Your task to perform on an android device: change notifications settings Image 0: 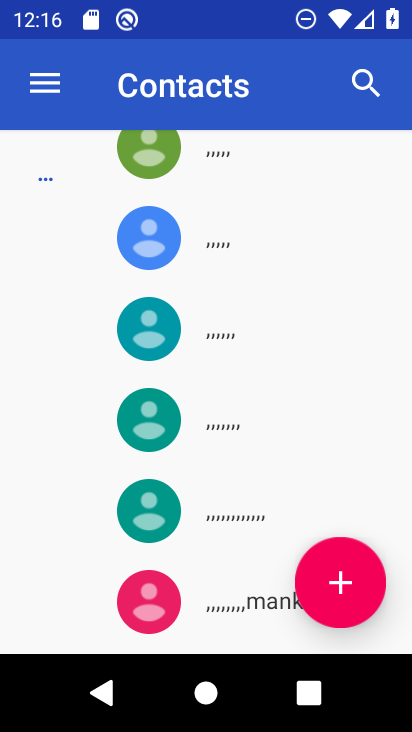
Step 0: press home button
Your task to perform on an android device: change notifications settings Image 1: 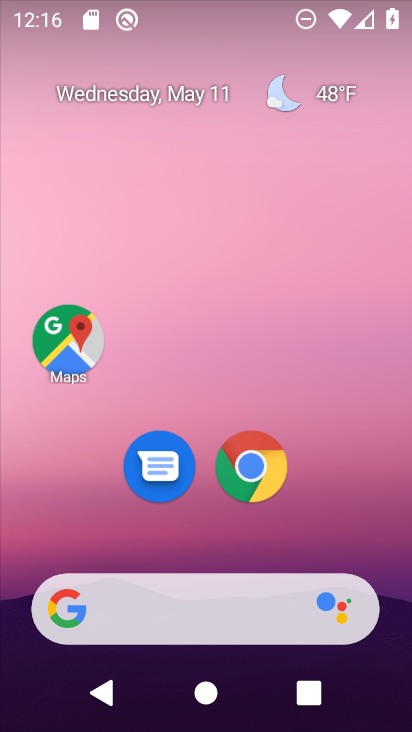
Step 1: drag from (217, 544) to (227, 33)
Your task to perform on an android device: change notifications settings Image 2: 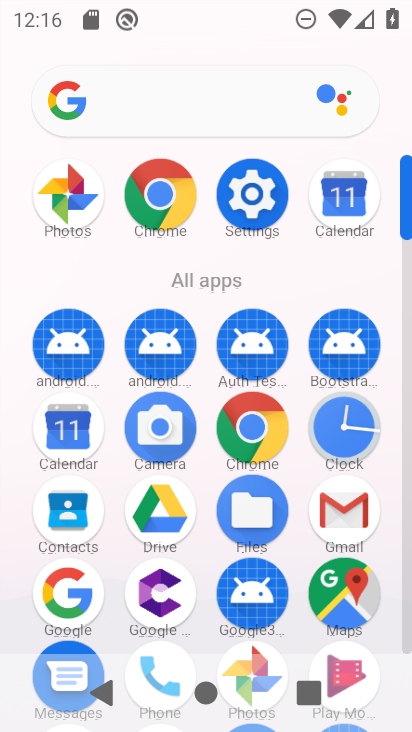
Step 2: click (249, 186)
Your task to perform on an android device: change notifications settings Image 3: 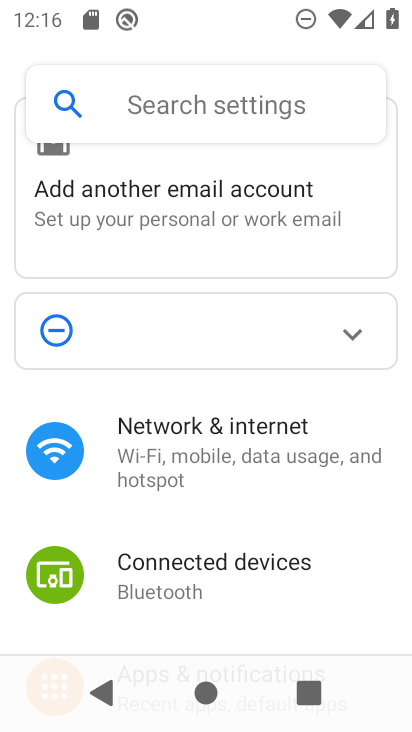
Step 3: drag from (211, 610) to (246, 180)
Your task to perform on an android device: change notifications settings Image 4: 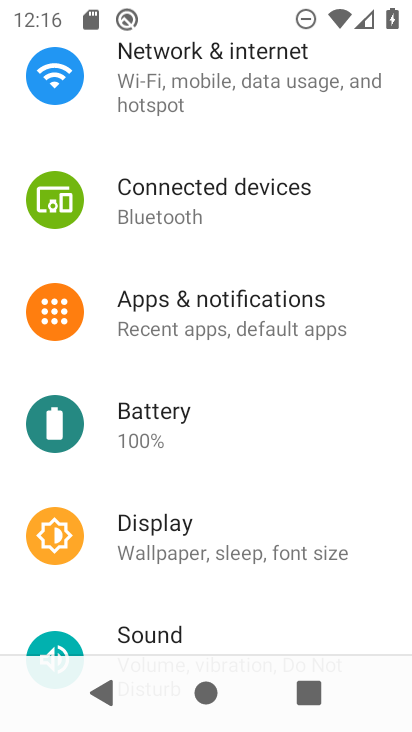
Step 4: click (99, 312)
Your task to perform on an android device: change notifications settings Image 5: 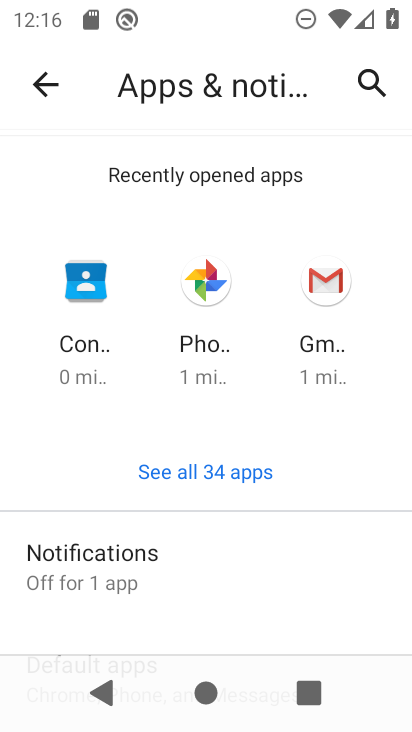
Step 5: click (174, 563)
Your task to perform on an android device: change notifications settings Image 6: 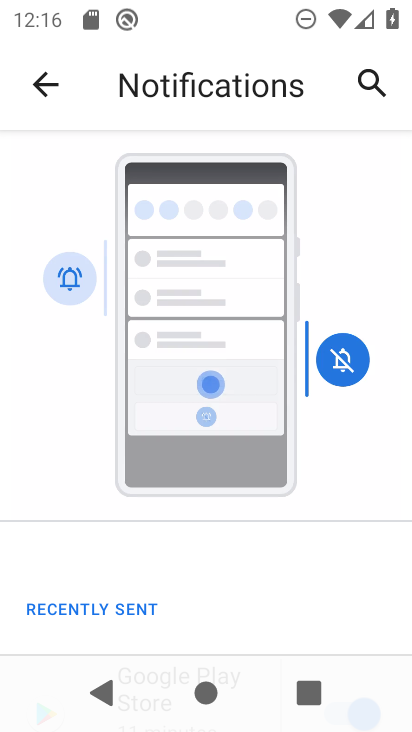
Step 6: drag from (207, 599) to (239, 109)
Your task to perform on an android device: change notifications settings Image 7: 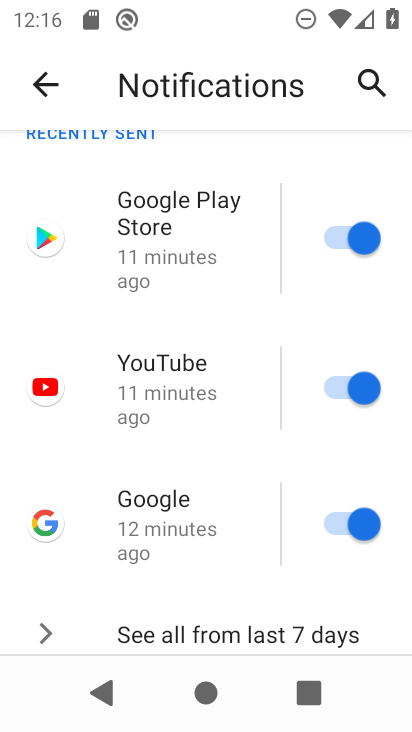
Step 7: drag from (222, 604) to (255, 151)
Your task to perform on an android device: change notifications settings Image 8: 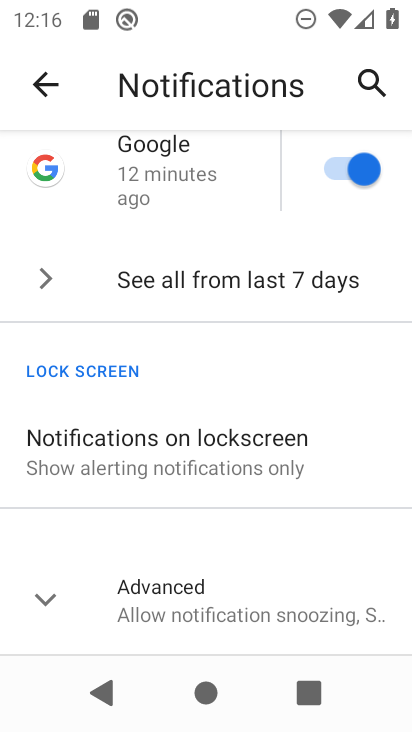
Step 8: click (43, 595)
Your task to perform on an android device: change notifications settings Image 9: 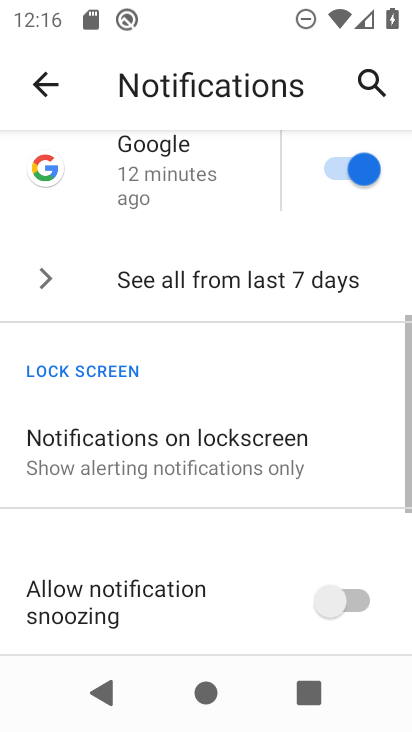
Step 9: drag from (171, 607) to (210, 456)
Your task to perform on an android device: change notifications settings Image 10: 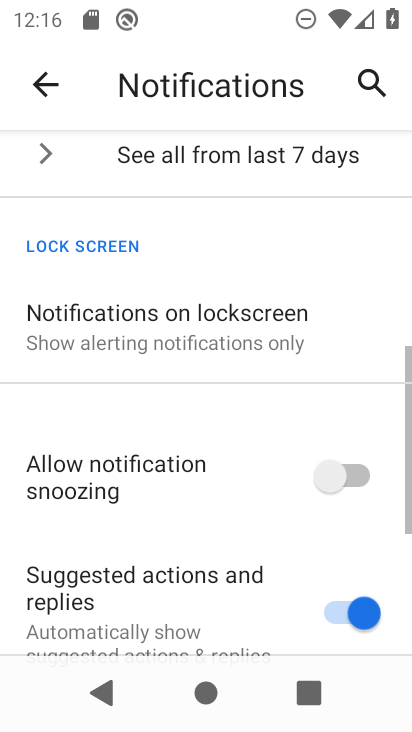
Step 10: drag from (229, 390) to (233, 341)
Your task to perform on an android device: change notifications settings Image 11: 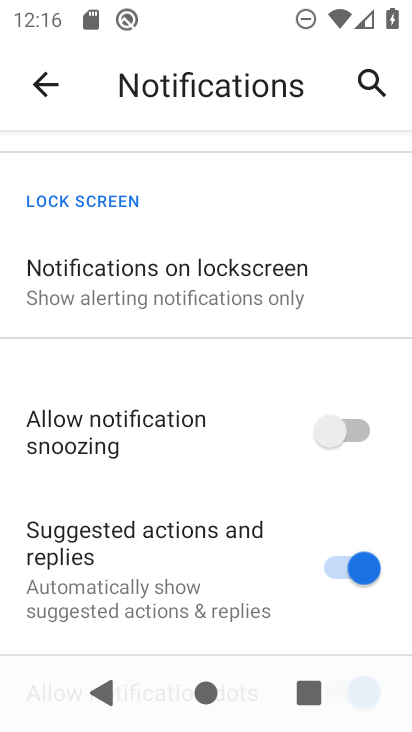
Step 11: drag from (203, 380) to (203, 690)
Your task to perform on an android device: change notifications settings Image 12: 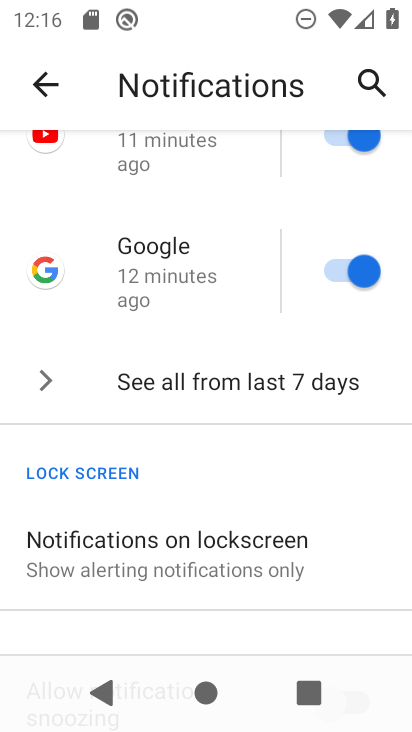
Step 12: drag from (238, 216) to (240, 512)
Your task to perform on an android device: change notifications settings Image 13: 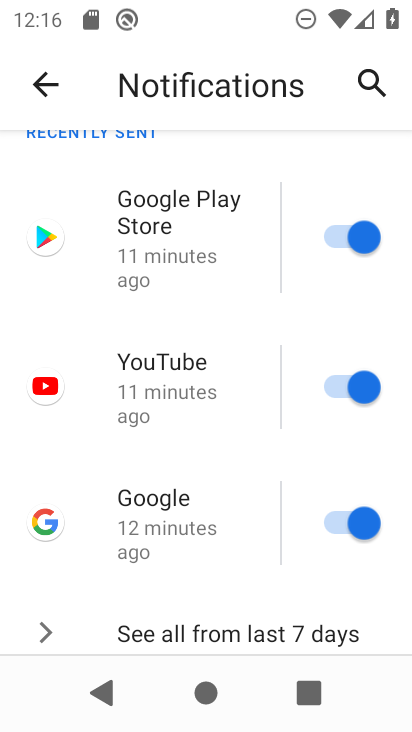
Step 13: click (345, 230)
Your task to perform on an android device: change notifications settings Image 14: 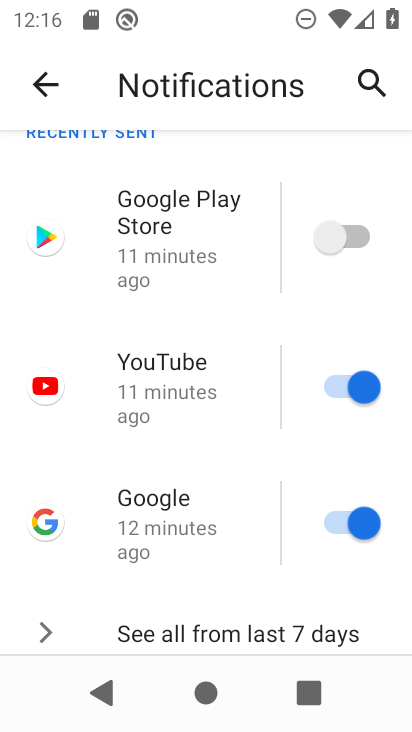
Step 14: click (340, 384)
Your task to perform on an android device: change notifications settings Image 15: 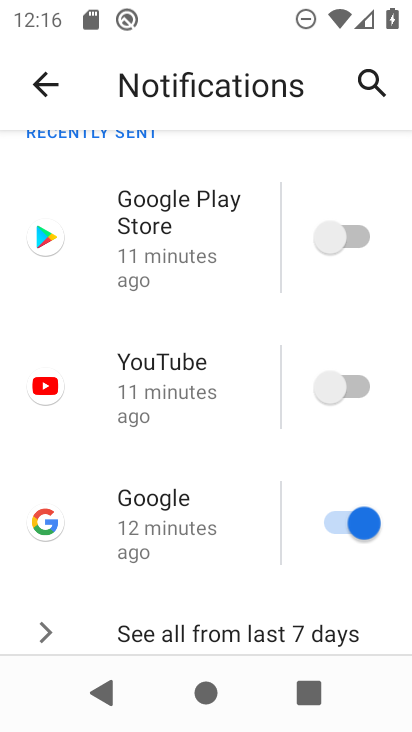
Step 15: click (346, 524)
Your task to perform on an android device: change notifications settings Image 16: 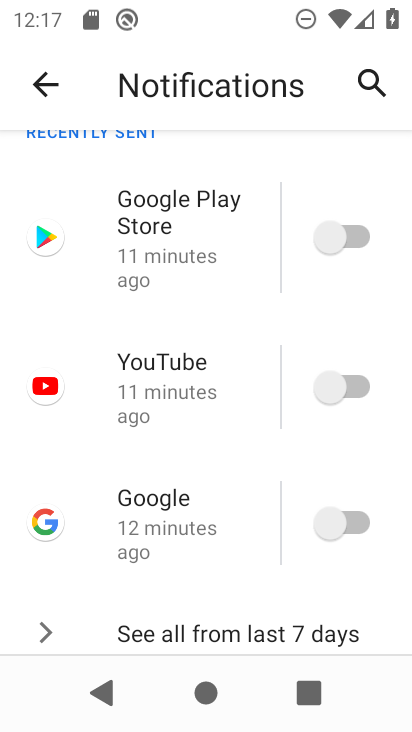
Step 16: drag from (246, 606) to (257, 327)
Your task to perform on an android device: change notifications settings Image 17: 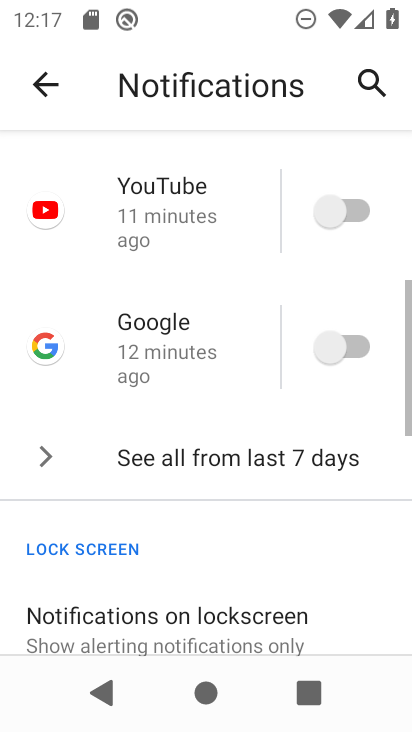
Step 17: click (257, 204)
Your task to perform on an android device: change notifications settings Image 18: 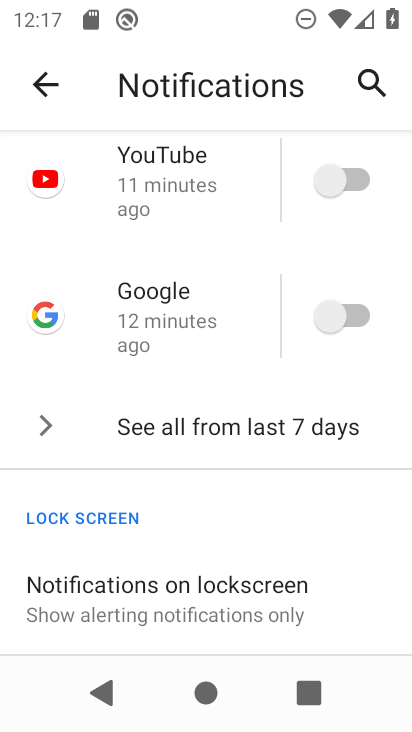
Step 18: click (331, 602)
Your task to perform on an android device: change notifications settings Image 19: 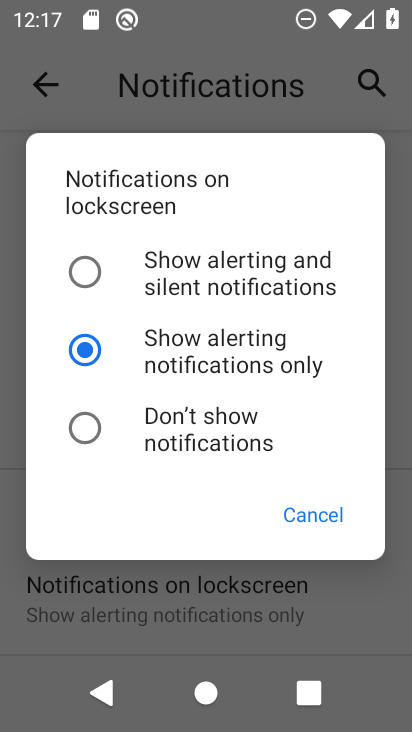
Step 19: click (77, 272)
Your task to perform on an android device: change notifications settings Image 20: 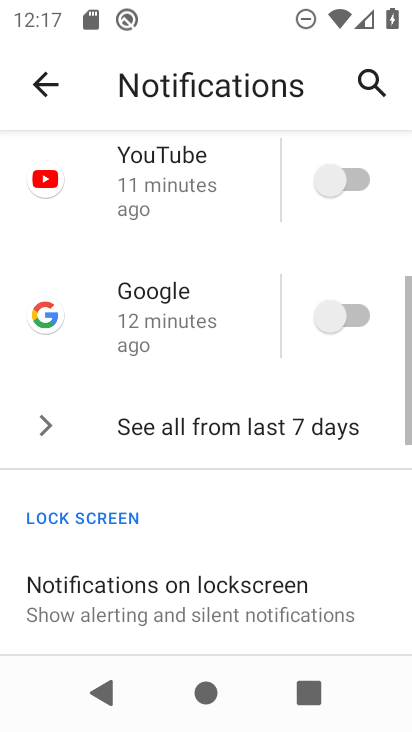
Step 20: task complete